Your task to perform on an android device: open chrome and create a bookmark for the current page Image 0: 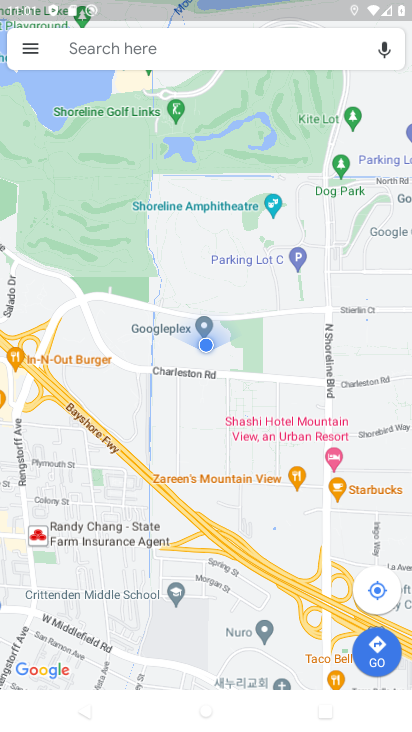
Step 0: press home button
Your task to perform on an android device: open chrome and create a bookmark for the current page Image 1: 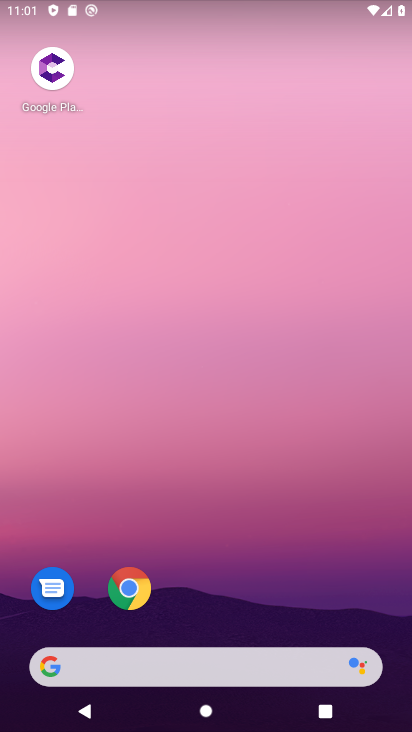
Step 1: click (129, 595)
Your task to perform on an android device: open chrome and create a bookmark for the current page Image 2: 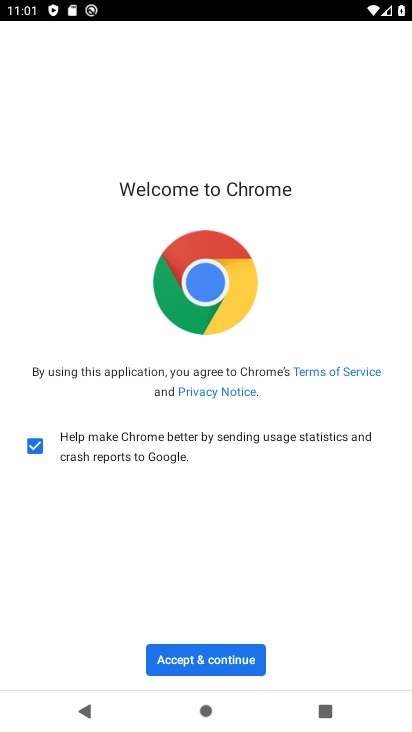
Step 2: click (219, 644)
Your task to perform on an android device: open chrome and create a bookmark for the current page Image 3: 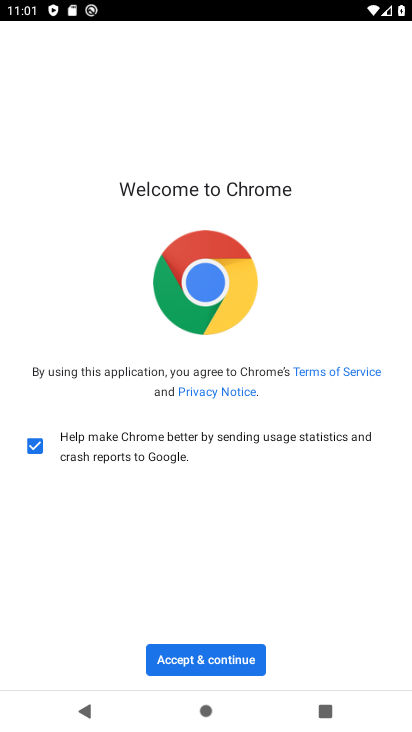
Step 3: click (219, 644)
Your task to perform on an android device: open chrome and create a bookmark for the current page Image 4: 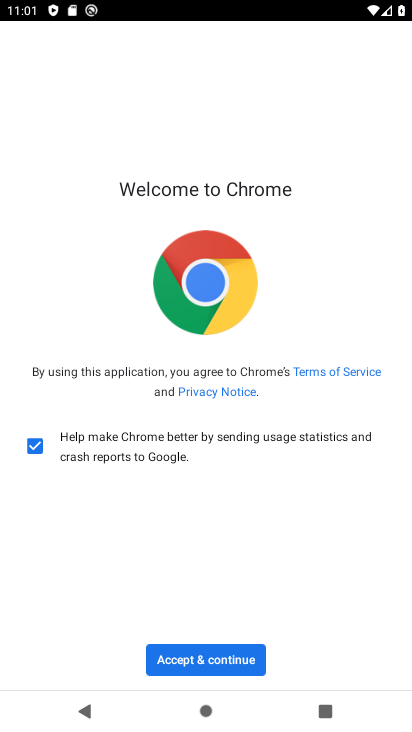
Step 4: click (214, 657)
Your task to perform on an android device: open chrome and create a bookmark for the current page Image 5: 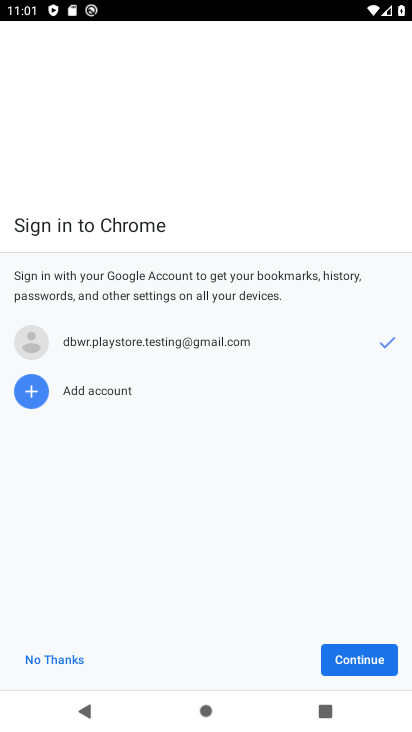
Step 5: click (354, 646)
Your task to perform on an android device: open chrome and create a bookmark for the current page Image 6: 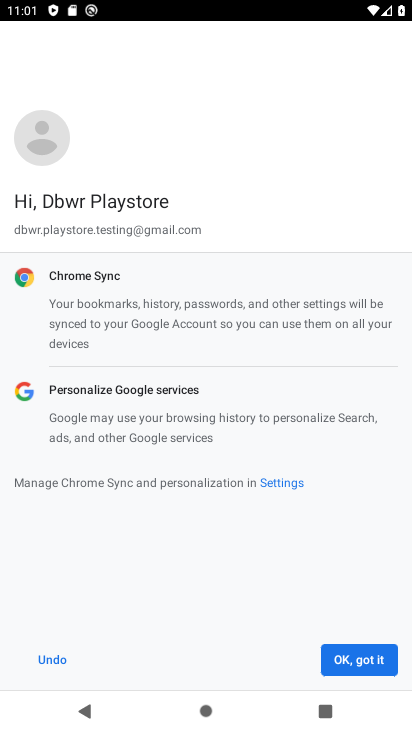
Step 6: click (354, 646)
Your task to perform on an android device: open chrome and create a bookmark for the current page Image 7: 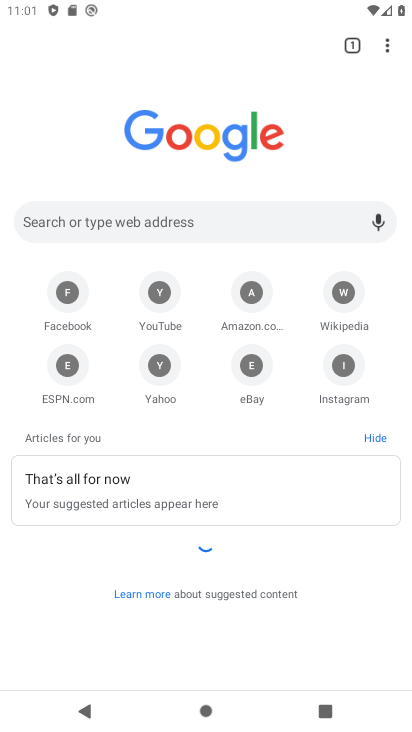
Step 7: click (384, 44)
Your task to perform on an android device: open chrome and create a bookmark for the current page Image 8: 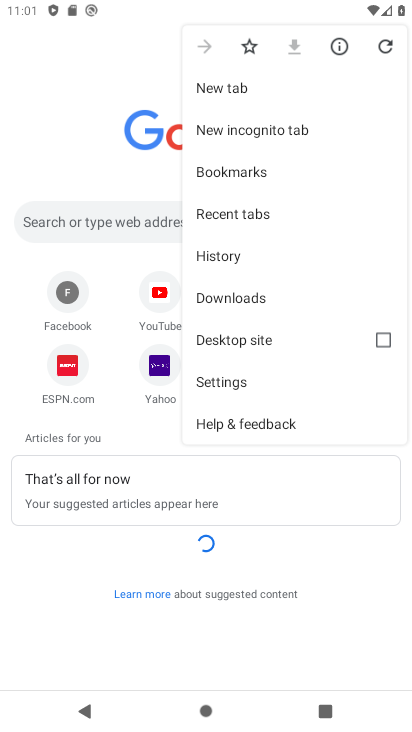
Step 8: click (250, 50)
Your task to perform on an android device: open chrome and create a bookmark for the current page Image 9: 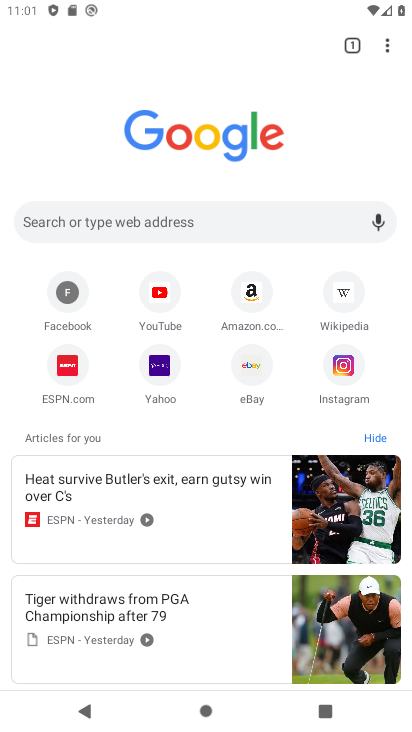
Step 9: task complete